Your task to perform on an android device: Open Reddit.com Image 0: 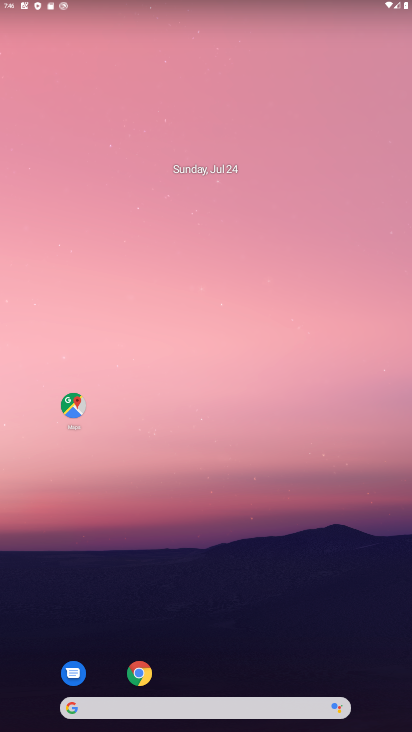
Step 0: drag from (192, 686) to (180, 412)
Your task to perform on an android device: Open Reddit.com Image 1: 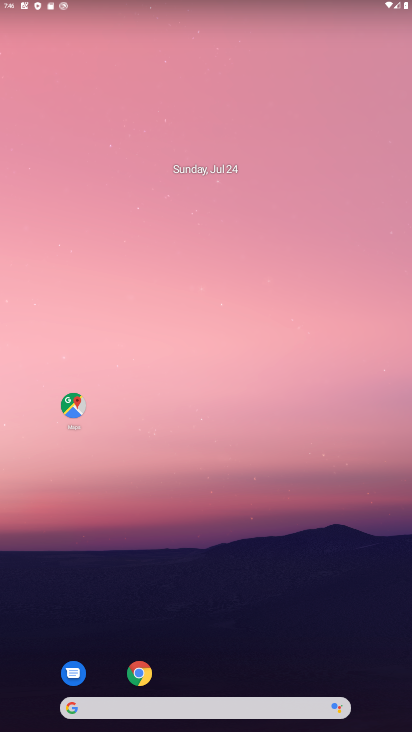
Step 1: drag from (236, 629) to (32, 420)
Your task to perform on an android device: Open Reddit.com Image 2: 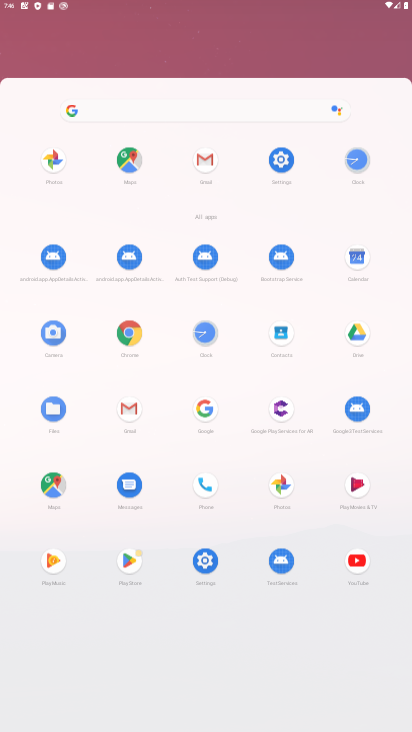
Step 2: click (176, 112)
Your task to perform on an android device: Open Reddit.com Image 3: 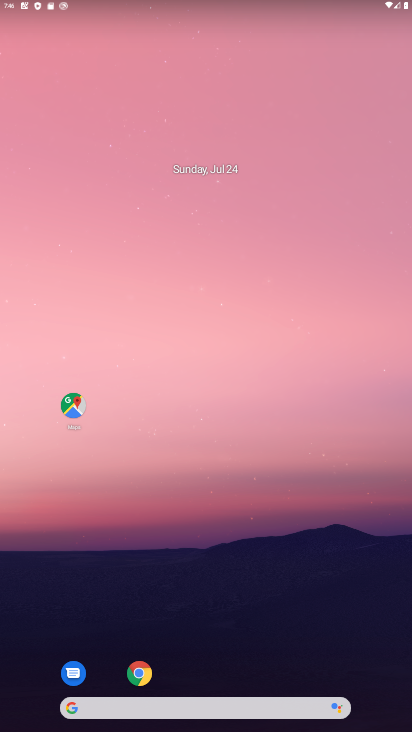
Step 3: drag from (311, 176) to (365, 23)
Your task to perform on an android device: Open Reddit.com Image 4: 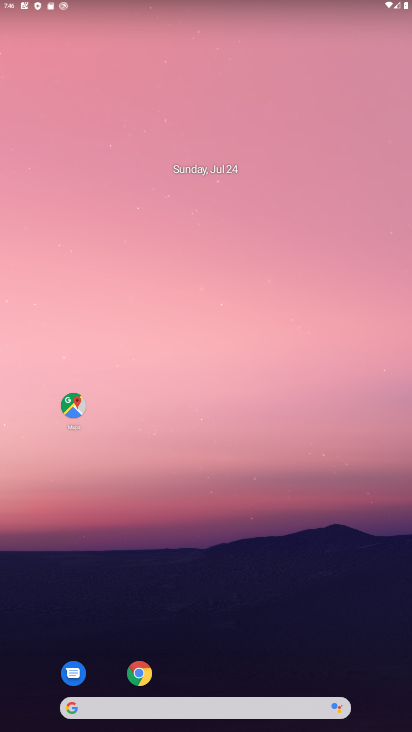
Step 4: click (220, 19)
Your task to perform on an android device: Open Reddit.com Image 5: 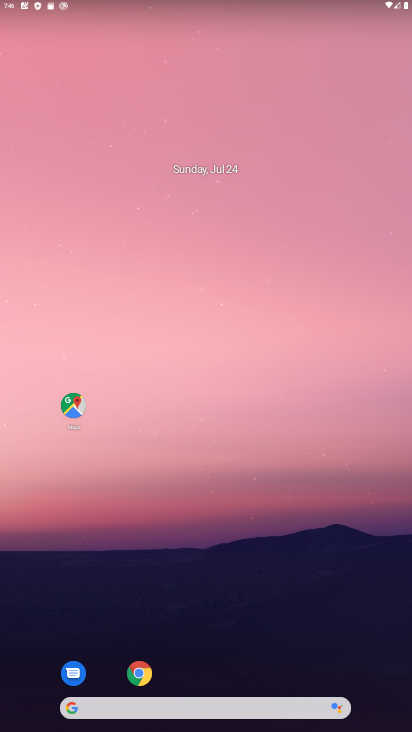
Step 5: drag from (207, 666) to (271, 88)
Your task to perform on an android device: Open Reddit.com Image 6: 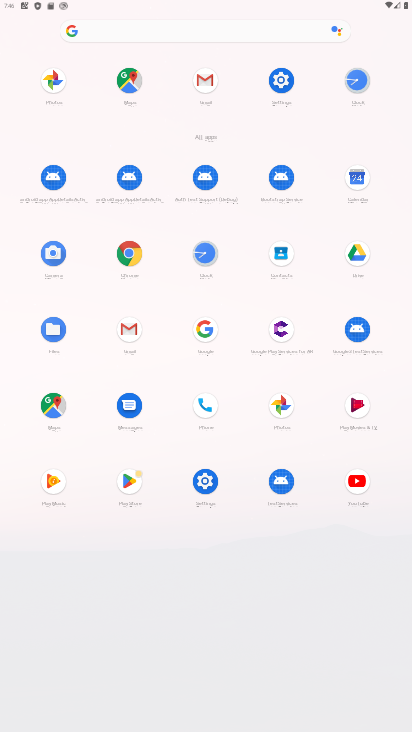
Step 6: click (110, 33)
Your task to perform on an android device: Open Reddit.com Image 7: 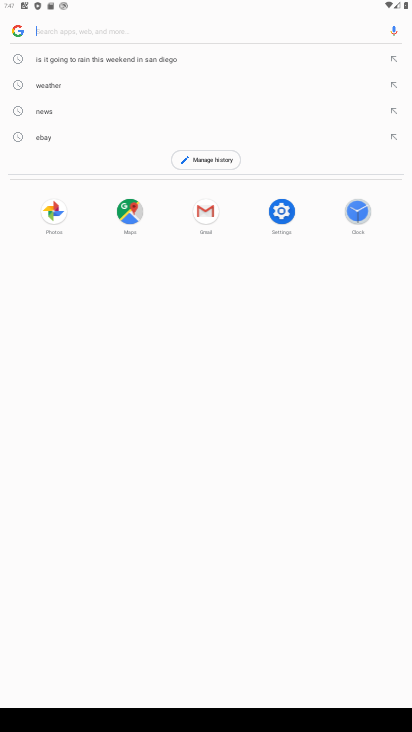
Step 7: type "Reddit.com"
Your task to perform on an android device: Open Reddit.com Image 8: 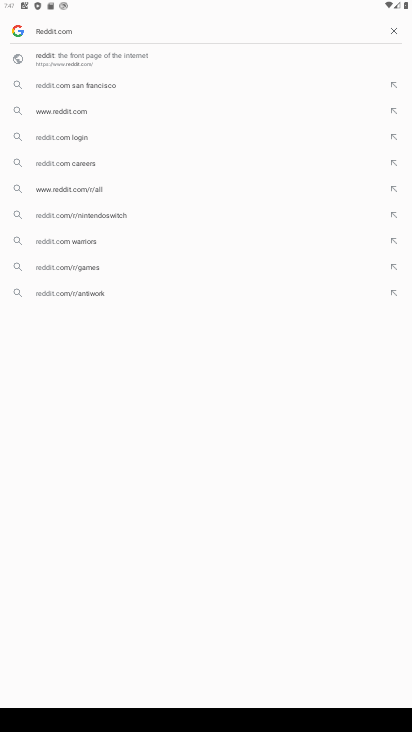
Step 8: click (50, 119)
Your task to perform on an android device: Open Reddit.com Image 9: 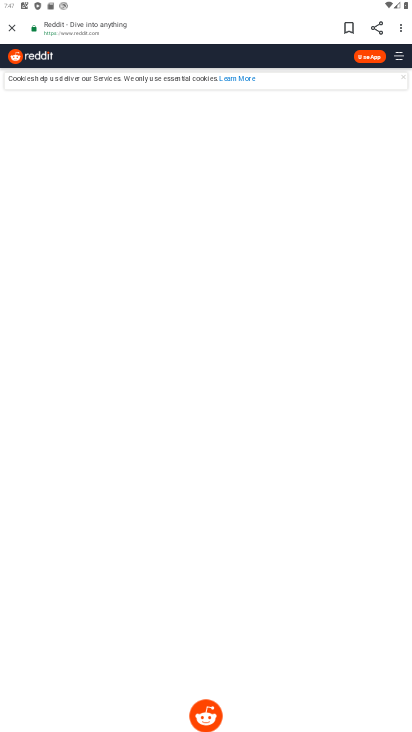
Step 9: task complete